Your task to perform on an android device: Open internet settings Image 0: 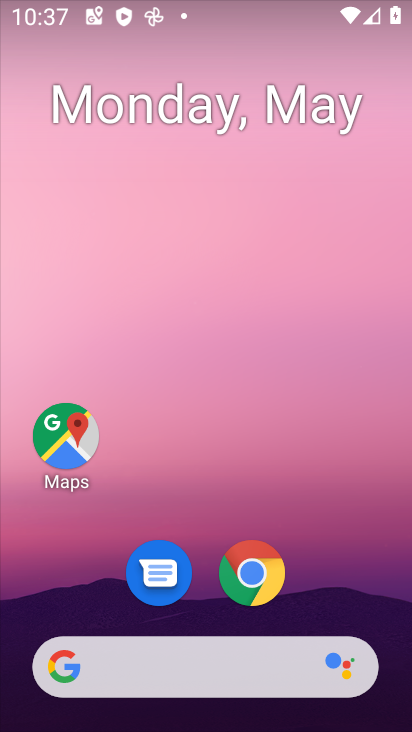
Step 0: drag from (362, 580) to (236, 0)
Your task to perform on an android device: Open internet settings Image 1: 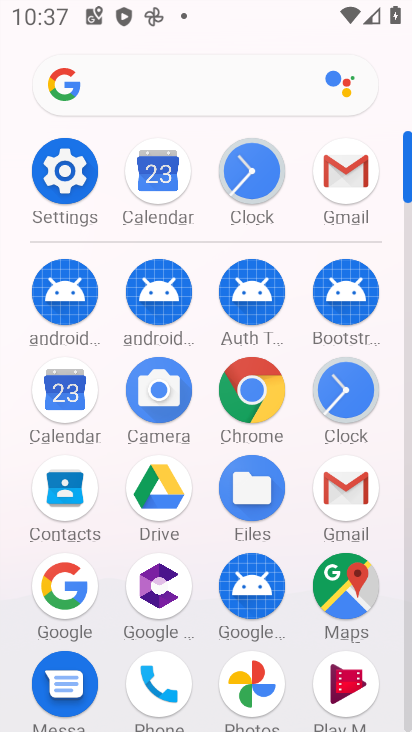
Step 1: click (86, 214)
Your task to perform on an android device: Open internet settings Image 2: 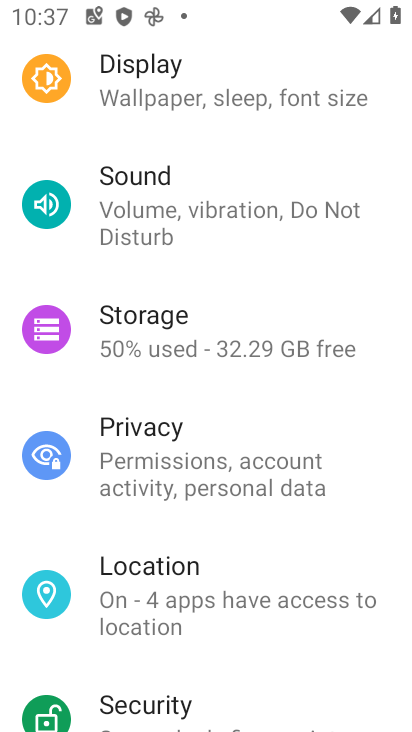
Step 2: drag from (255, 96) to (351, 706)
Your task to perform on an android device: Open internet settings Image 3: 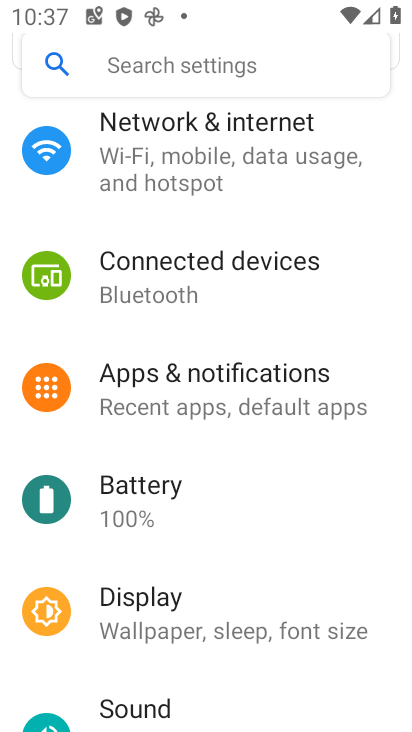
Step 3: click (223, 229)
Your task to perform on an android device: Open internet settings Image 4: 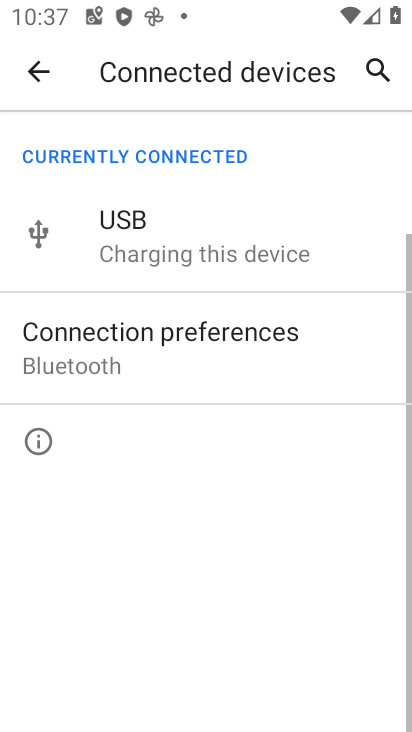
Step 4: click (235, 197)
Your task to perform on an android device: Open internet settings Image 5: 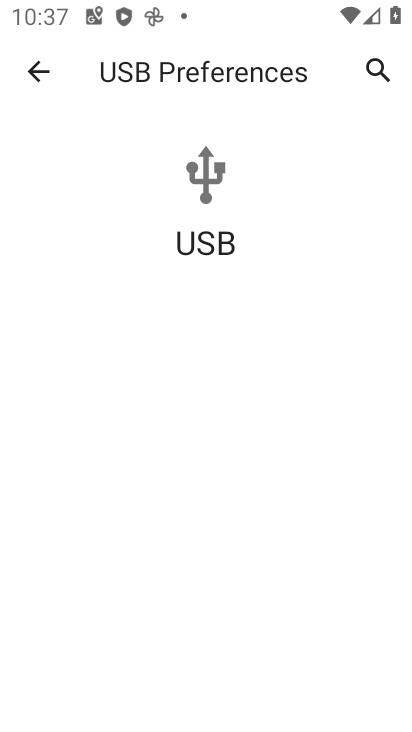
Step 5: click (49, 66)
Your task to perform on an android device: Open internet settings Image 6: 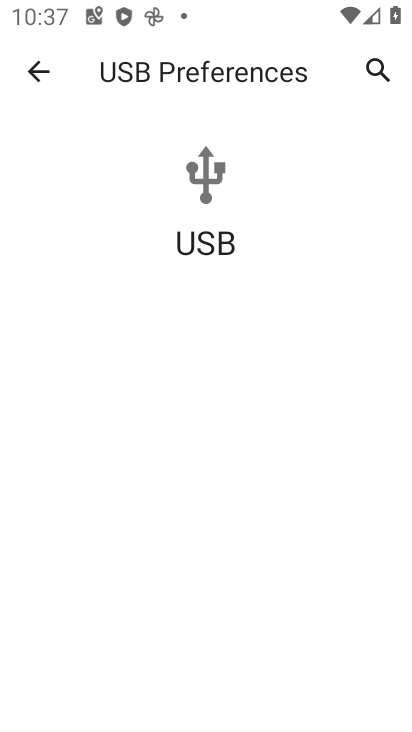
Step 6: click (49, 66)
Your task to perform on an android device: Open internet settings Image 7: 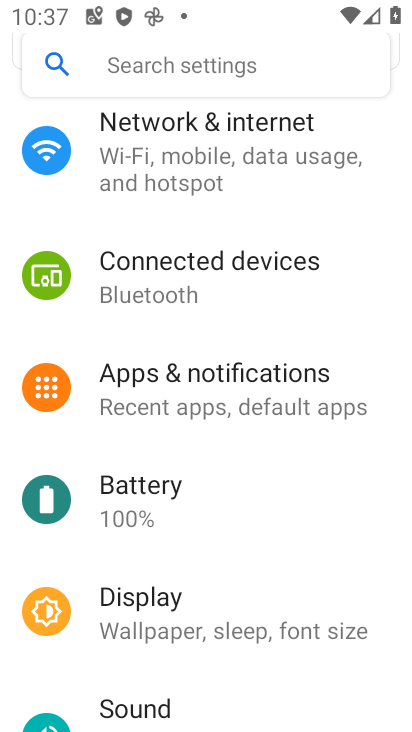
Step 7: click (232, 189)
Your task to perform on an android device: Open internet settings Image 8: 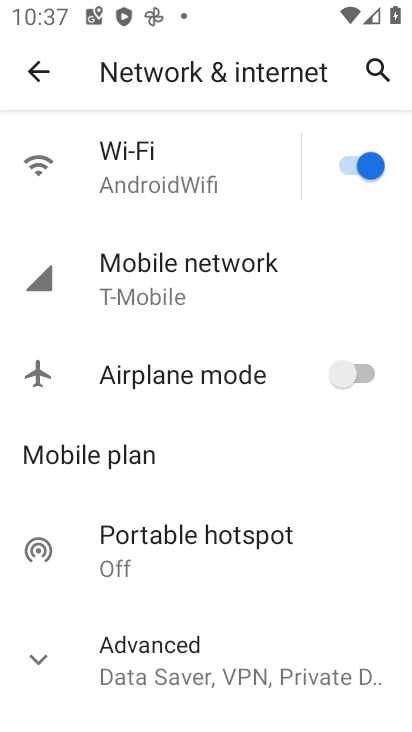
Step 8: task complete